Your task to perform on an android device: Open the calendar app, open the side menu, and click the "Day" option Image 0: 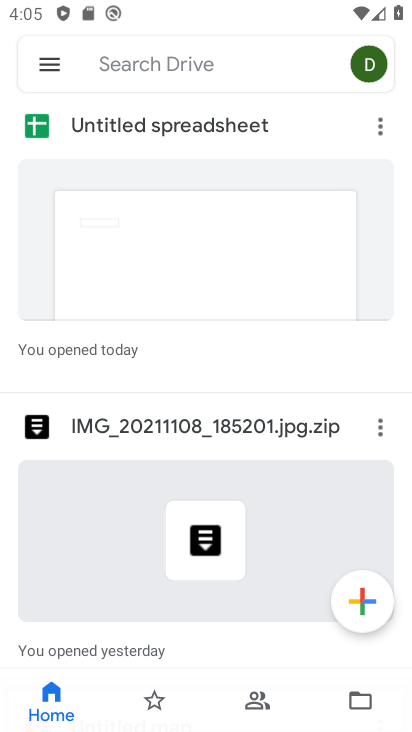
Step 0: press home button
Your task to perform on an android device: Open the calendar app, open the side menu, and click the "Day" option Image 1: 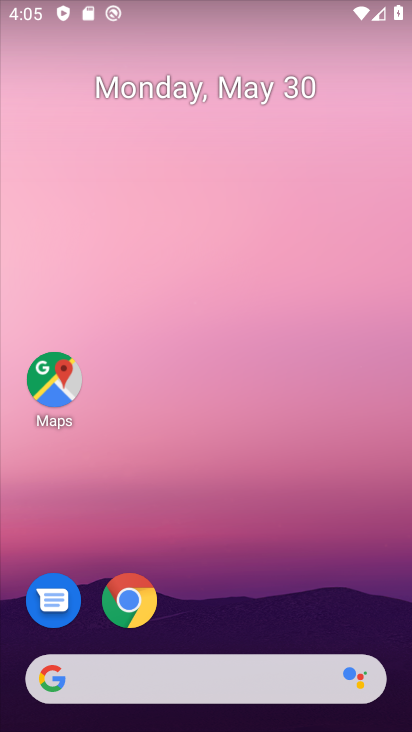
Step 1: drag from (255, 610) to (190, 308)
Your task to perform on an android device: Open the calendar app, open the side menu, and click the "Day" option Image 2: 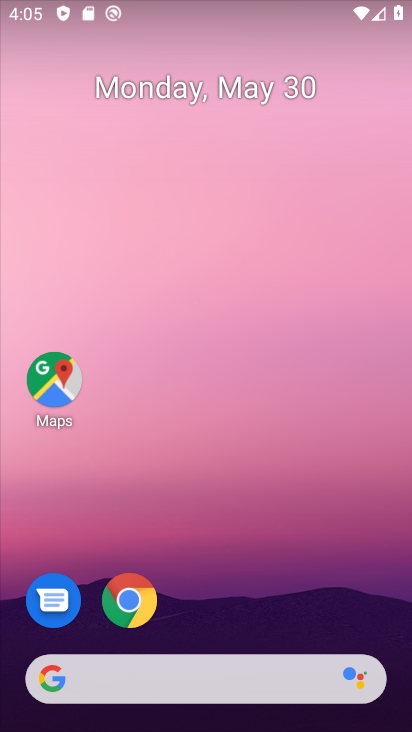
Step 2: drag from (219, 623) to (193, 2)
Your task to perform on an android device: Open the calendar app, open the side menu, and click the "Day" option Image 3: 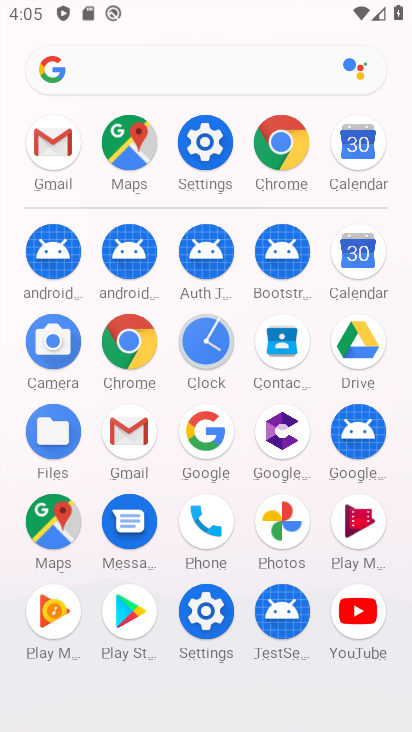
Step 3: click (362, 259)
Your task to perform on an android device: Open the calendar app, open the side menu, and click the "Day" option Image 4: 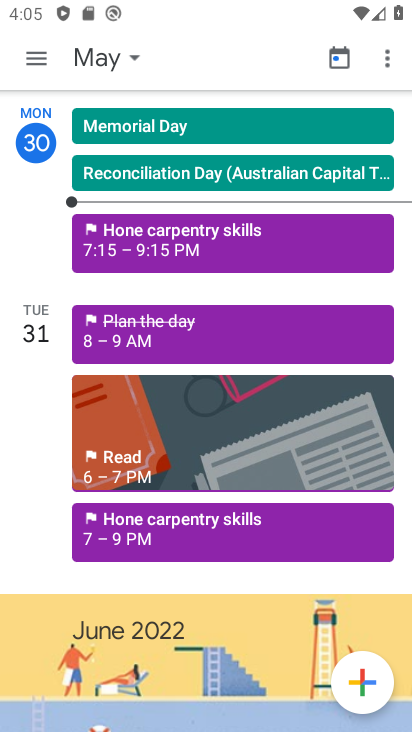
Step 4: click (33, 57)
Your task to perform on an android device: Open the calendar app, open the side menu, and click the "Day" option Image 5: 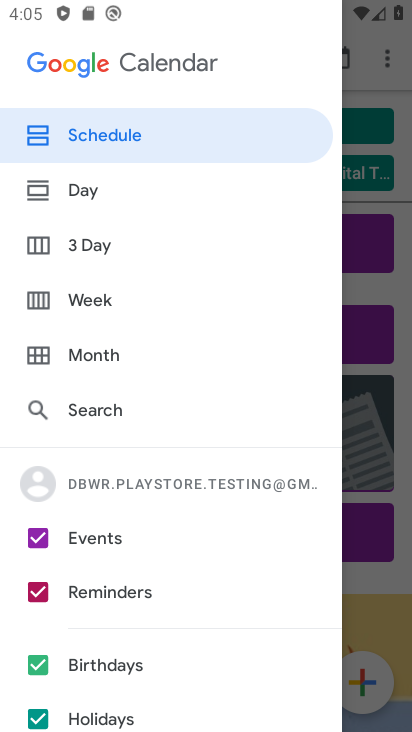
Step 5: click (142, 197)
Your task to perform on an android device: Open the calendar app, open the side menu, and click the "Day" option Image 6: 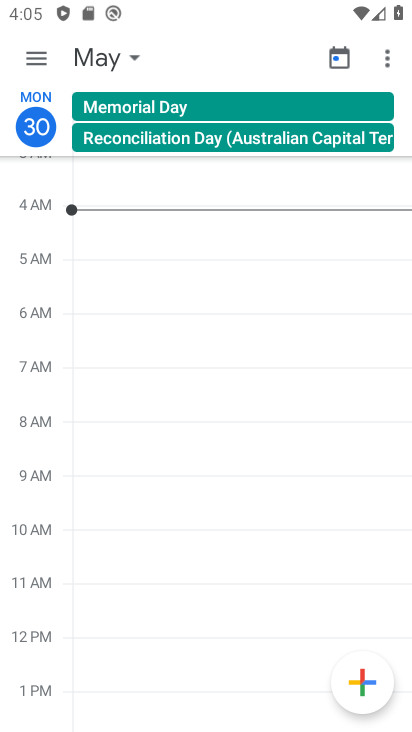
Step 6: task complete